Your task to perform on an android device: check storage Image 0: 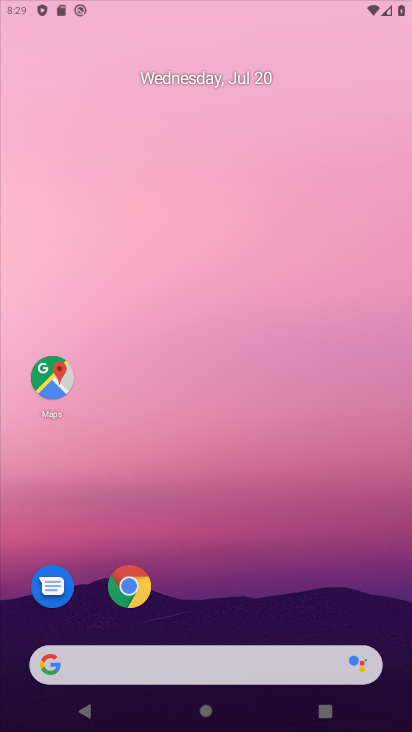
Step 0: click (225, 619)
Your task to perform on an android device: check storage Image 1: 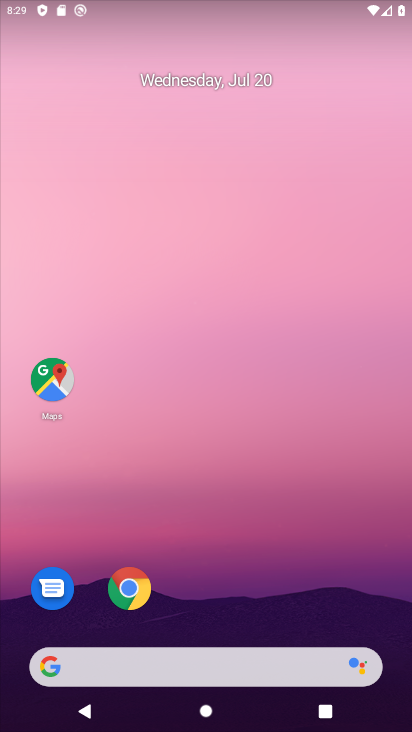
Step 1: press home button
Your task to perform on an android device: check storage Image 2: 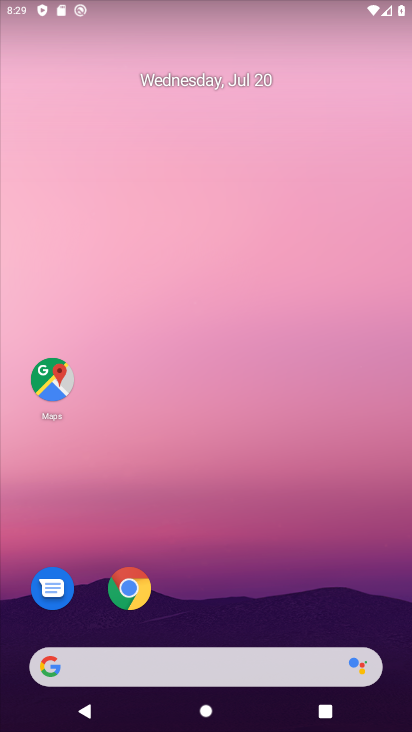
Step 2: drag from (241, 622) to (256, 4)
Your task to perform on an android device: check storage Image 3: 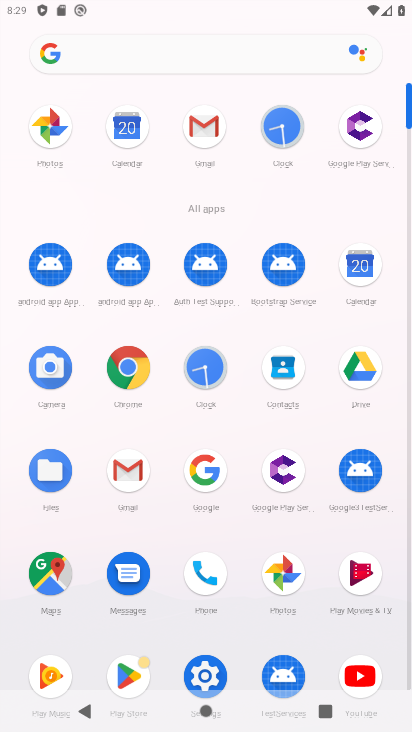
Step 3: click (216, 665)
Your task to perform on an android device: check storage Image 4: 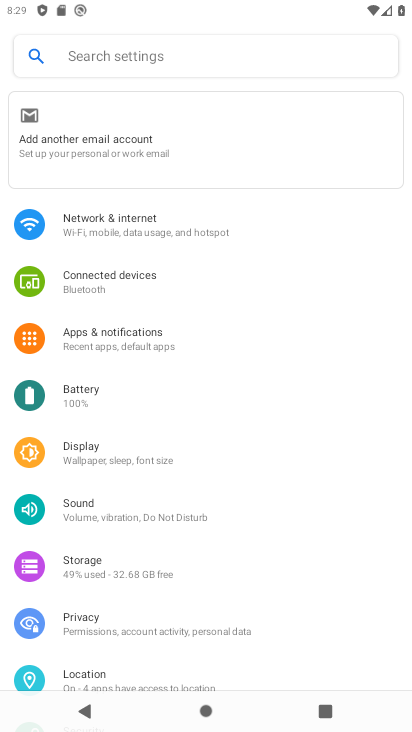
Step 4: drag from (216, 665) to (200, 170)
Your task to perform on an android device: check storage Image 5: 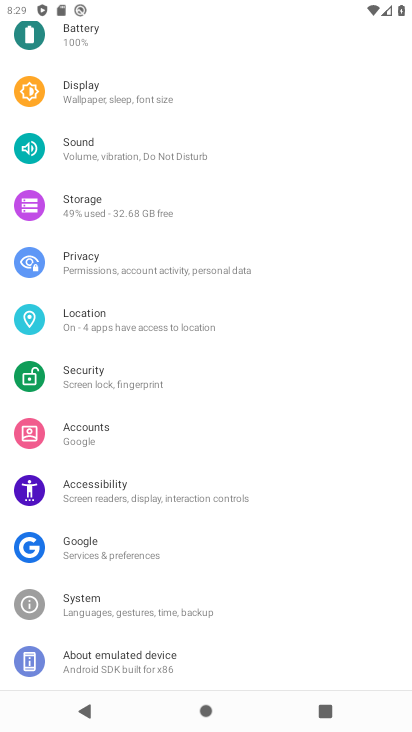
Step 5: click (51, 197)
Your task to perform on an android device: check storage Image 6: 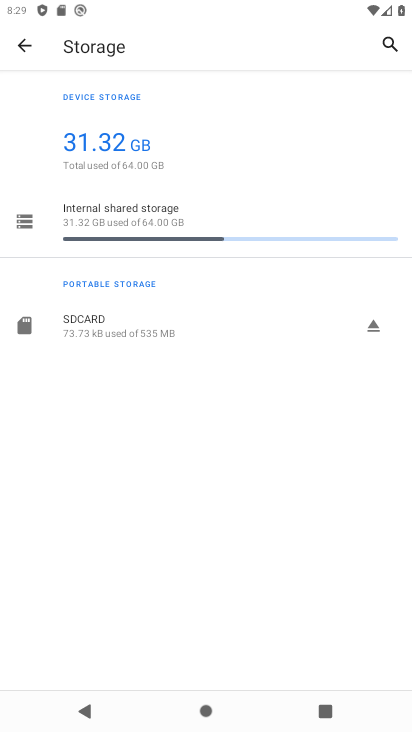
Step 6: click (93, 205)
Your task to perform on an android device: check storage Image 7: 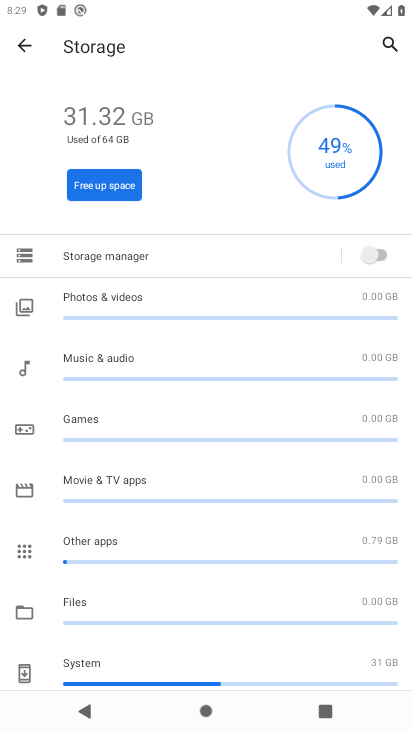
Step 7: task complete